Your task to perform on an android device: turn on javascript in the chrome app Image 0: 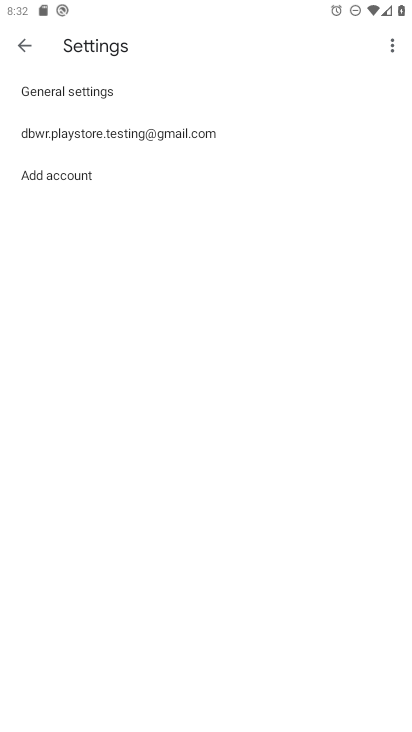
Step 0: press home button
Your task to perform on an android device: turn on javascript in the chrome app Image 1: 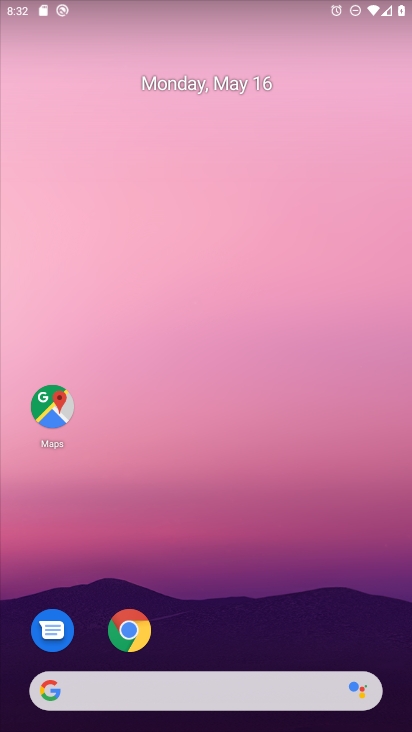
Step 1: click (130, 626)
Your task to perform on an android device: turn on javascript in the chrome app Image 2: 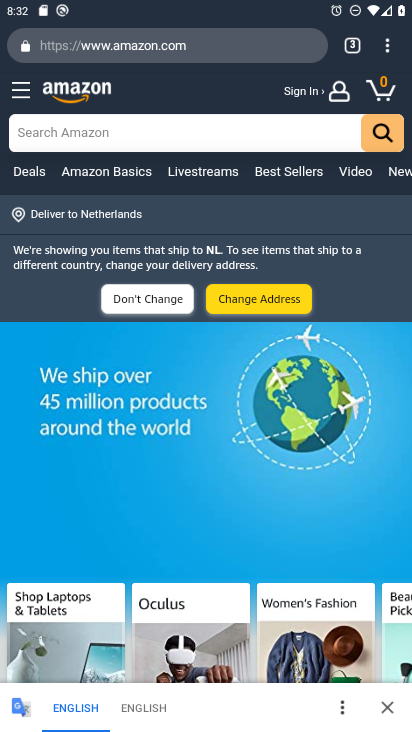
Step 2: click (387, 36)
Your task to perform on an android device: turn on javascript in the chrome app Image 3: 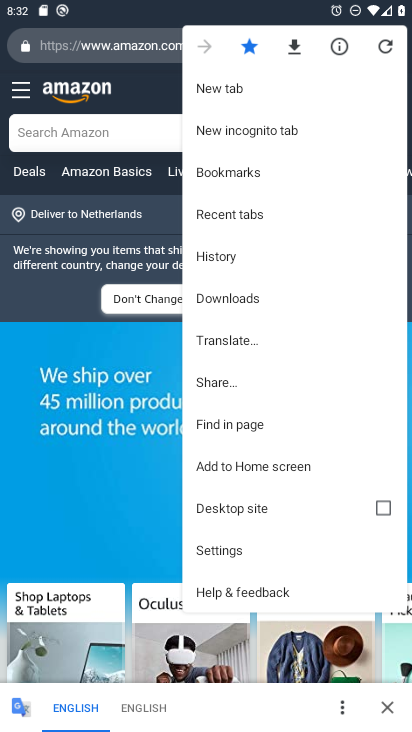
Step 3: click (241, 511)
Your task to perform on an android device: turn on javascript in the chrome app Image 4: 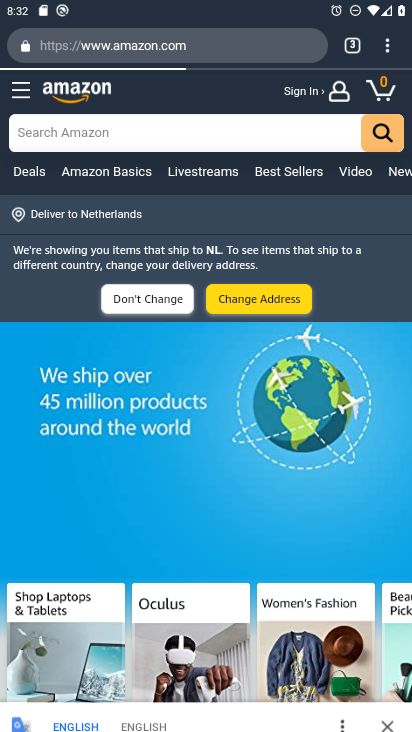
Step 4: click (224, 541)
Your task to perform on an android device: turn on javascript in the chrome app Image 5: 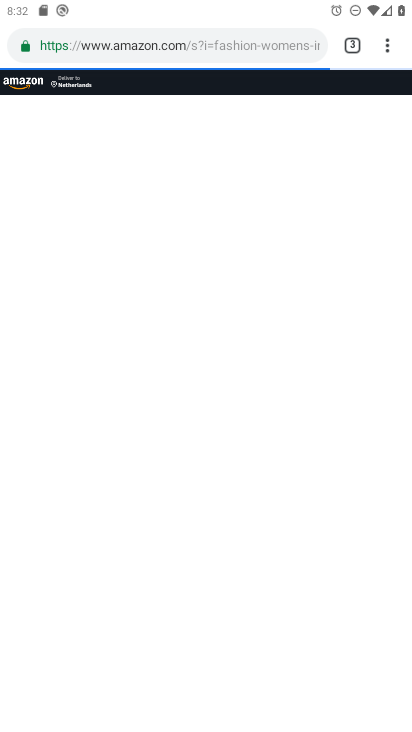
Step 5: click (380, 47)
Your task to perform on an android device: turn on javascript in the chrome app Image 6: 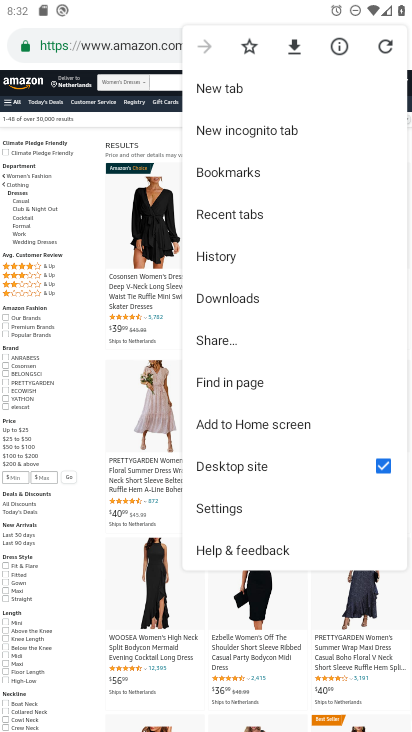
Step 6: click (213, 499)
Your task to perform on an android device: turn on javascript in the chrome app Image 7: 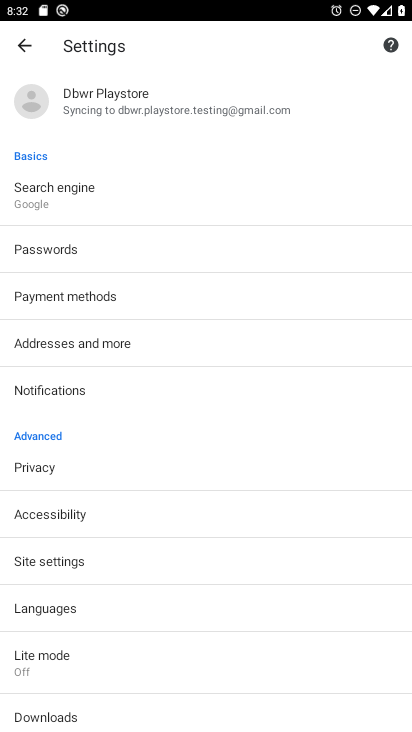
Step 7: click (87, 569)
Your task to perform on an android device: turn on javascript in the chrome app Image 8: 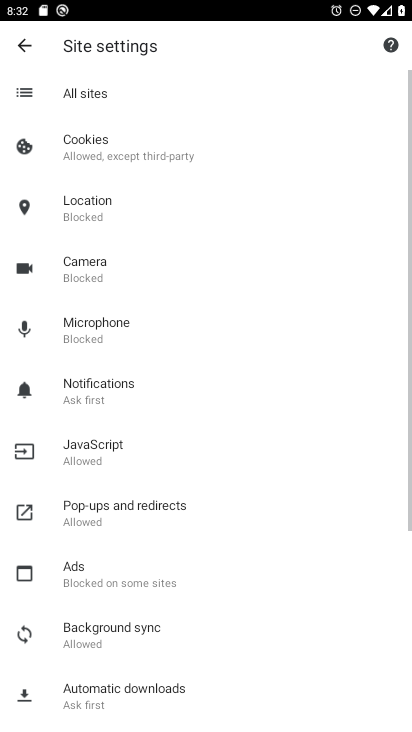
Step 8: click (137, 436)
Your task to perform on an android device: turn on javascript in the chrome app Image 9: 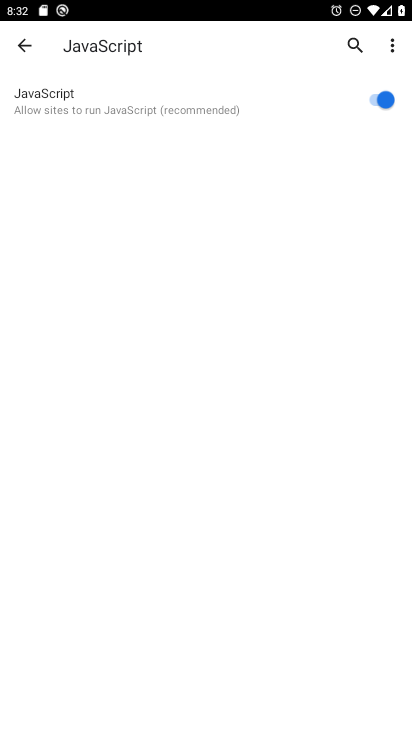
Step 9: task complete